Your task to perform on an android device: add a contact Image 0: 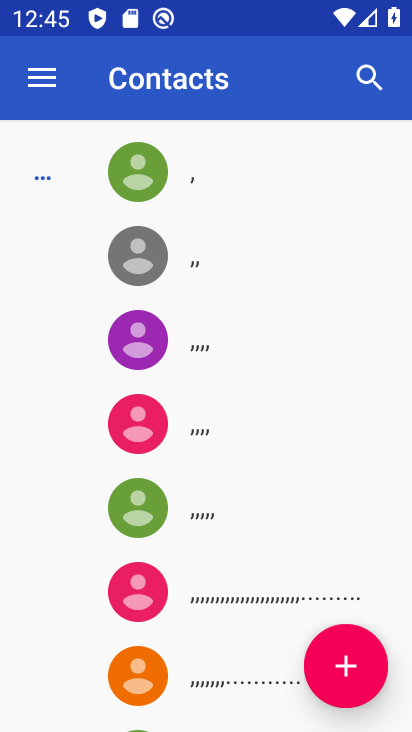
Step 0: press home button
Your task to perform on an android device: add a contact Image 1: 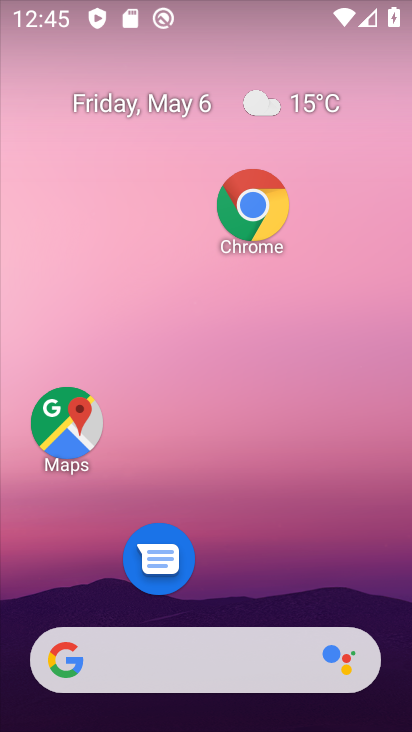
Step 1: drag from (219, 607) to (207, 13)
Your task to perform on an android device: add a contact Image 2: 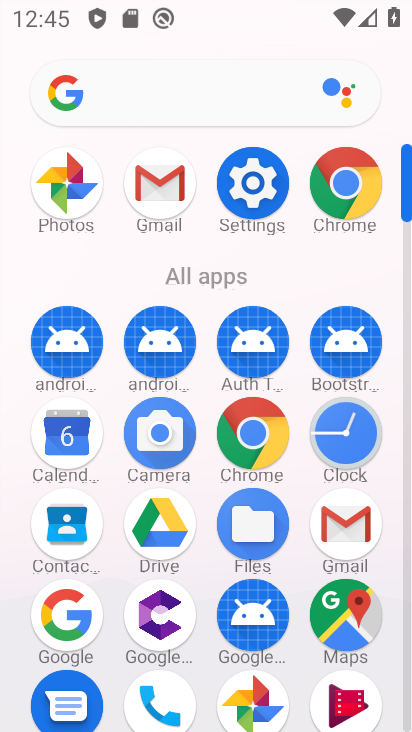
Step 2: click (159, 689)
Your task to perform on an android device: add a contact Image 3: 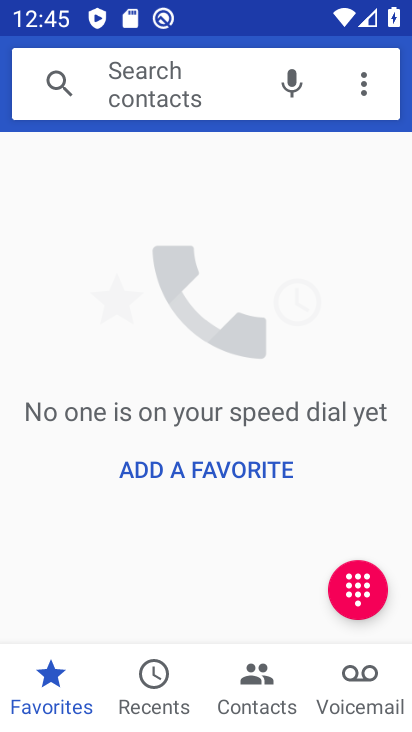
Step 3: click (239, 689)
Your task to perform on an android device: add a contact Image 4: 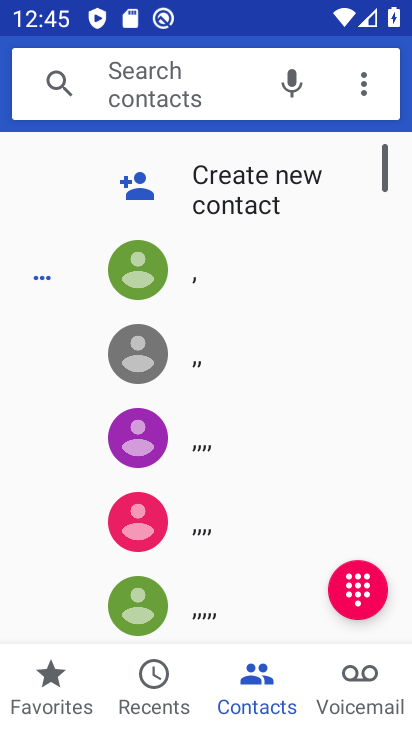
Step 4: click (224, 193)
Your task to perform on an android device: add a contact Image 5: 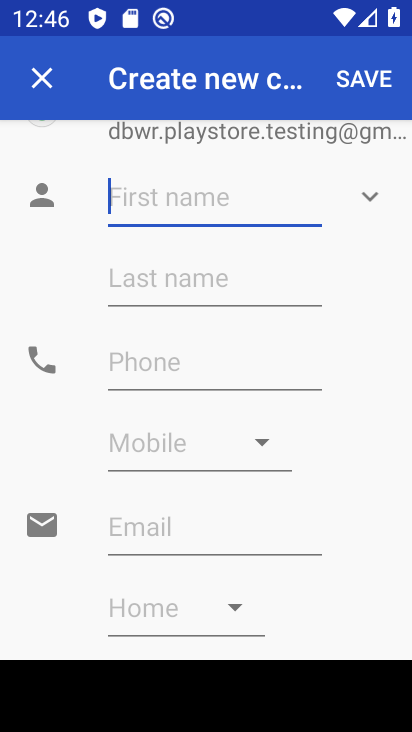
Step 5: type "jio"
Your task to perform on an android device: add a contact Image 6: 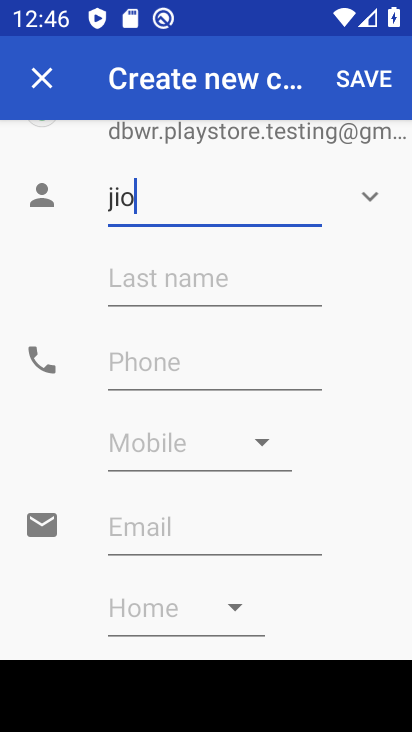
Step 6: click (179, 383)
Your task to perform on an android device: add a contact Image 7: 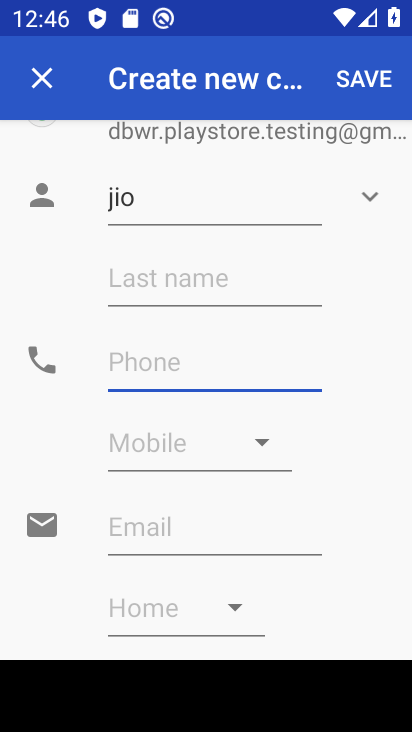
Step 7: type "987678765"
Your task to perform on an android device: add a contact Image 8: 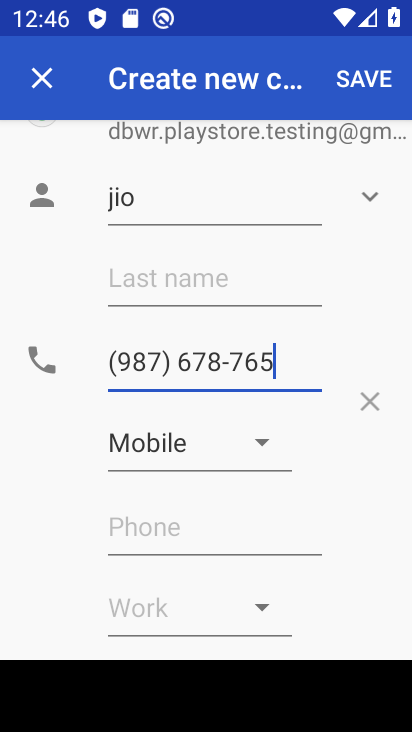
Step 8: click (349, 73)
Your task to perform on an android device: add a contact Image 9: 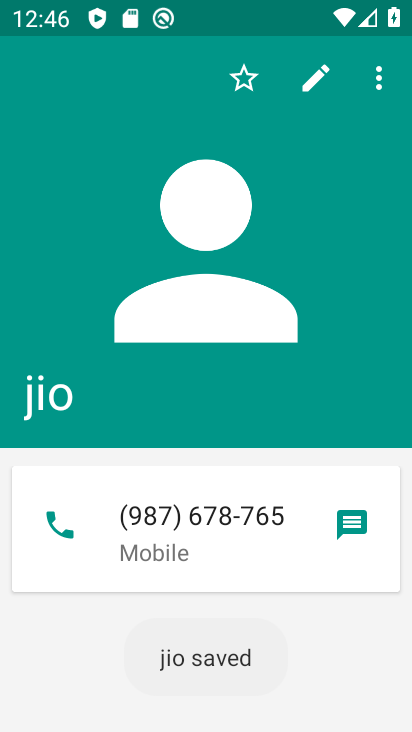
Step 9: task complete